Your task to perform on an android device: Open Chrome and go to settings Image 0: 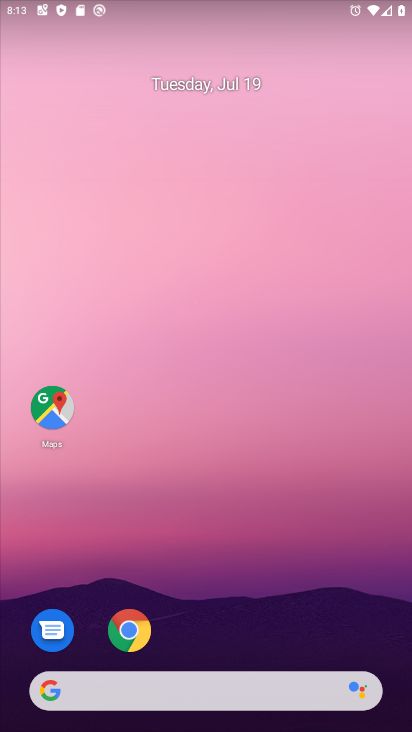
Step 0: click (125, 632)
Your task to perform on an android device: Open Chrome and go to settings Image 1: 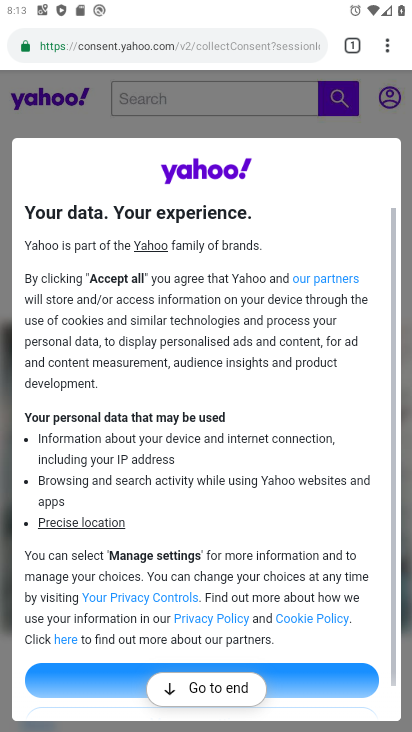
Step 1: click (388, 47)
Your task to perform on an android device: Open Chrome and go to settings Image 2: 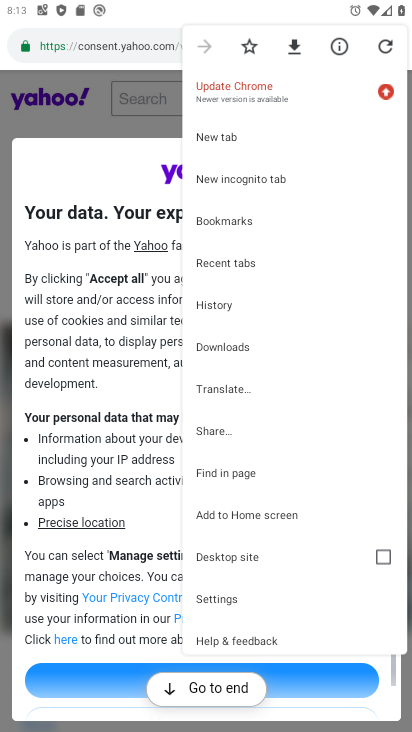
Step 2: click (222, 606)
Your task to perform on an android device: Open Chrome and go to settings Image 3: 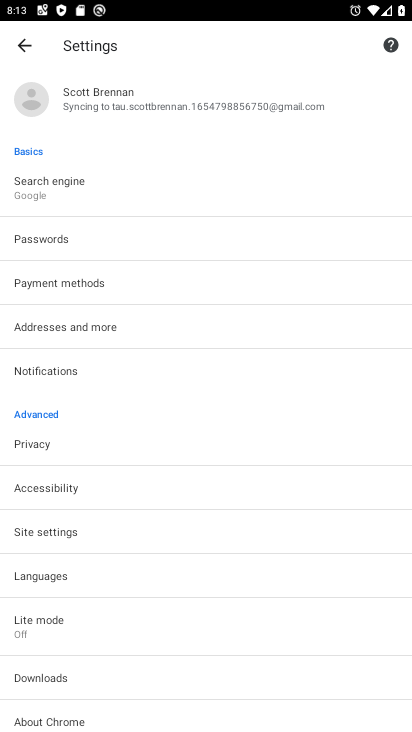
Step 3: task complete